Your task to perform on an android device: Search for pizza restaurants on Maps Image 0: 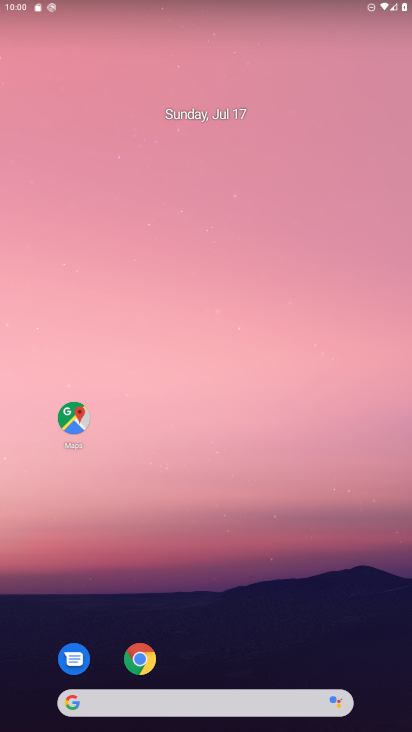
Step 0: click (70, 422)
Your task to perform on an android device: Search for pizza restaurants on Maps Image 1: 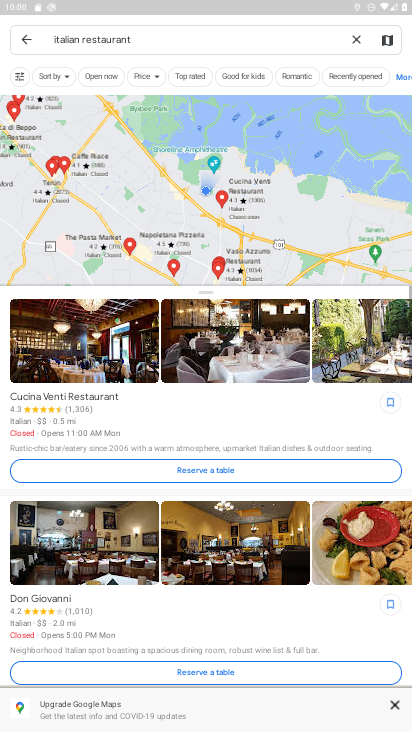
Step 1: click (228, 39)
Your task to perform on an android device: Search for pizza restaurants on Maps Image 2: 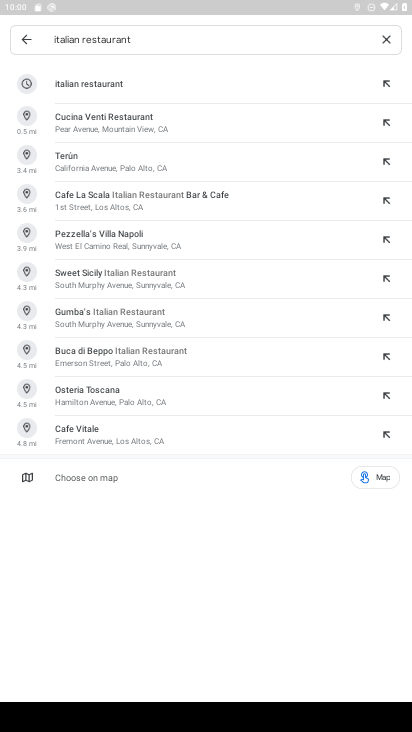
Step 2: click (382, 39)
Your task to perform on an android device: Search for pizza restaurants on Maps Image 3: 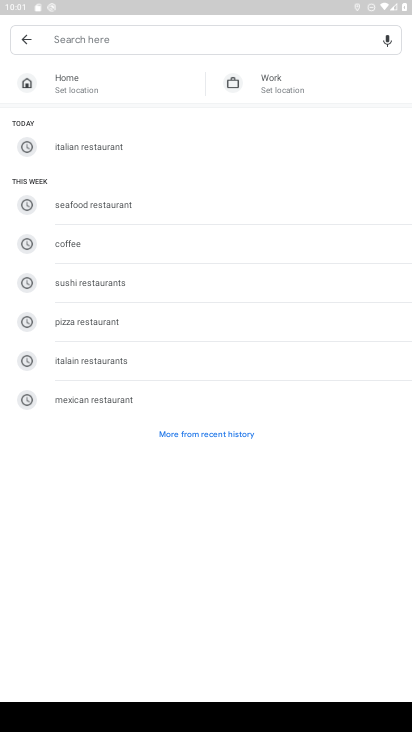
Step 3: type "pizza restaurants"
Your task to perform on an android device: Search for pizza restaurants on Maps Image 4: 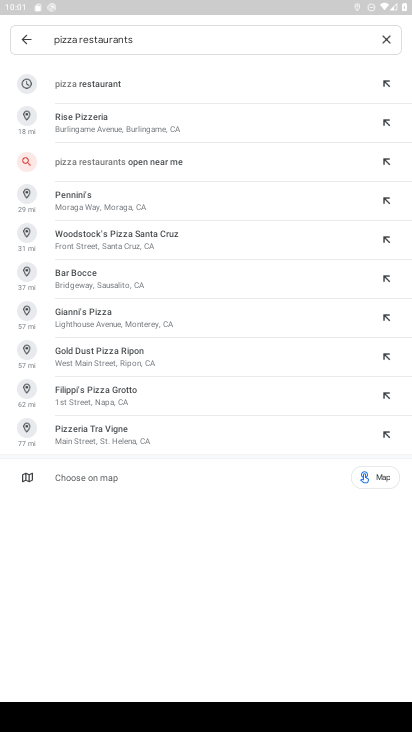
Step 4: click (118, 78)
Your task to perform on an android device: Search for pizza restaurants on Maps Image 5: 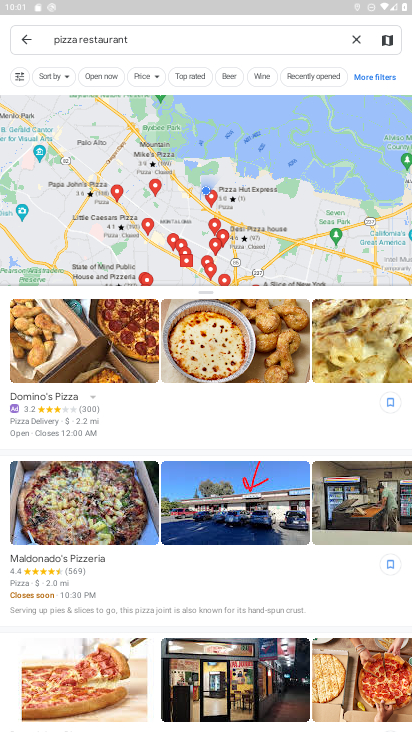
Step 5: task complete